Your task to perform on an android device: toggle notification dots Image 0: 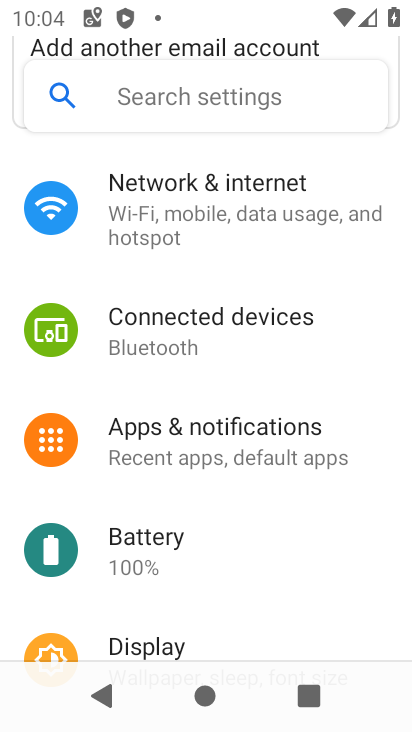
Step 0: click (160, 434)
Your task to perform on an android device: toggle notification dots Image 1: 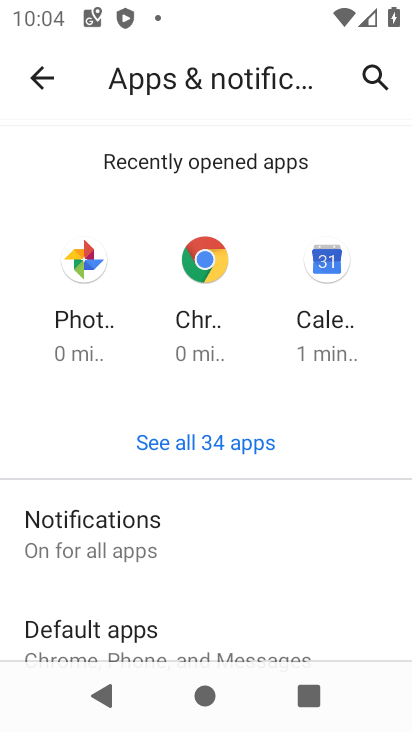
Step 1: click (94, 509)
Your task to perform on an android device: toggle notification dots Image 2: 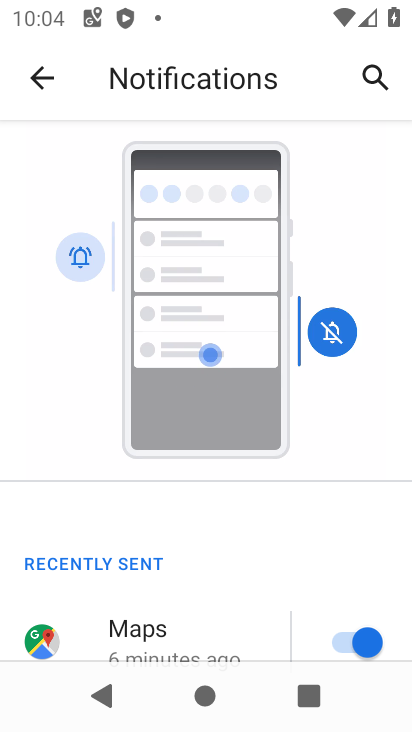
Step 2: drag from (281, 632) to (220, 161)
Your task to perform on an android device: toggle notification dots Image 3: 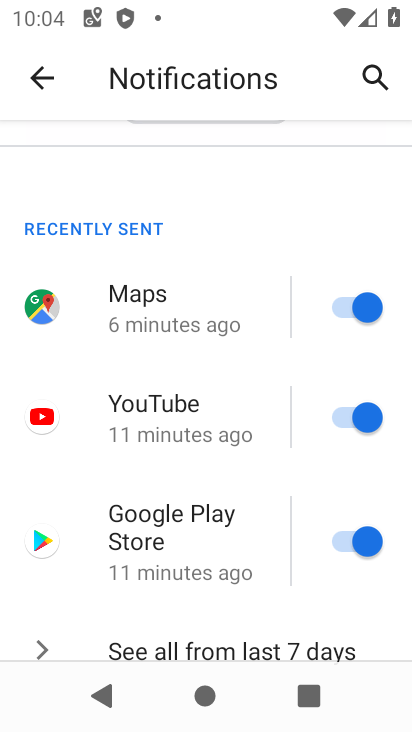
Step 3: drag from (280, 605) to (220, 48)
Your task to perform on an android device: toggle notification dots Image 4: 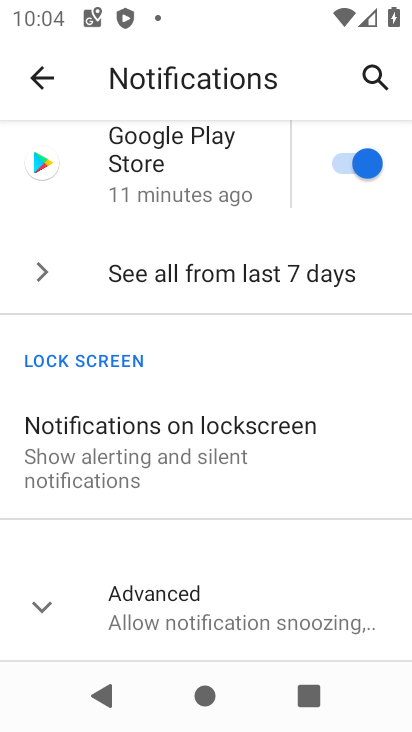
Step 4: click (39, 605)
Your task to perform on an android device: toggle notification dots Image 5: 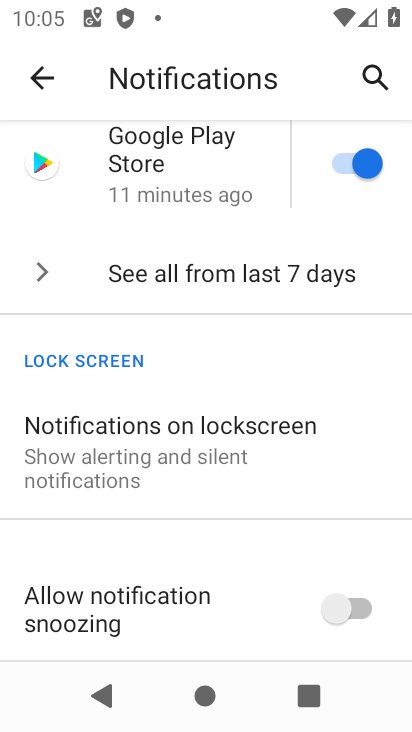
Step 5: drag from (275, 610) to (283, 83)
Your task to perform on an android device: toggle notification dots Image 6: 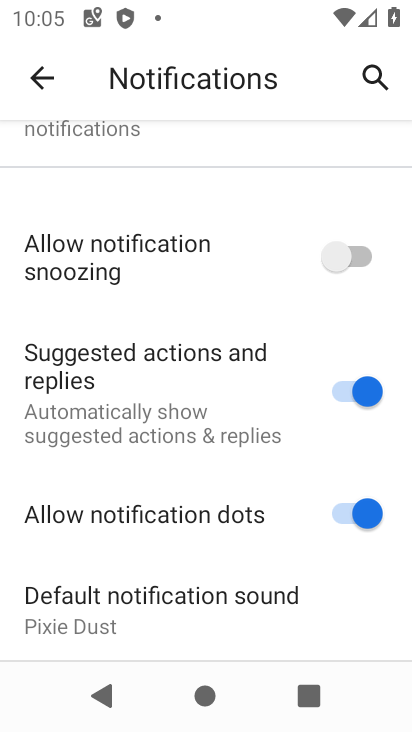
Step 6: click (344, 510)
Your task to perform on an android device: toggle notification dots Image 7: 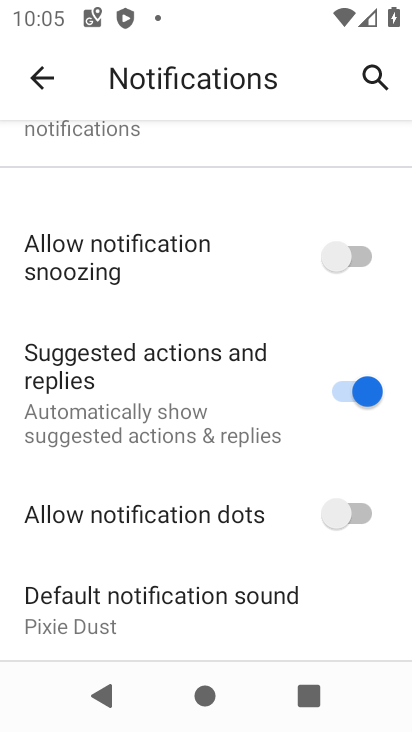
Step 7: task complete